Your task to perform on an android device: move a message to another label in the gmail app Image 0: 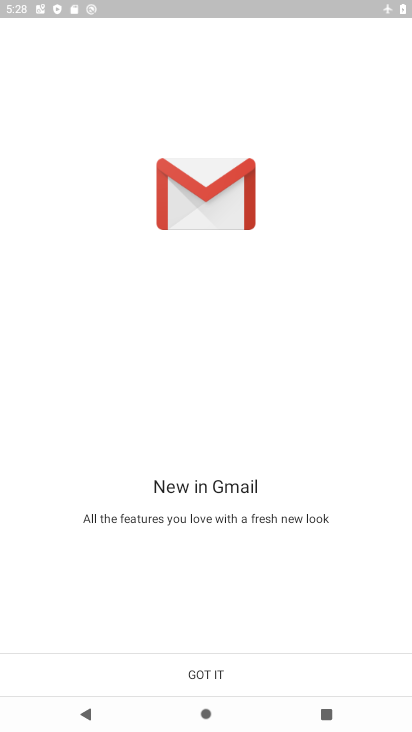
Step 0: click (213, 674)
Your task to perform on an android device: move a message to another label in the gmail app Image 1: 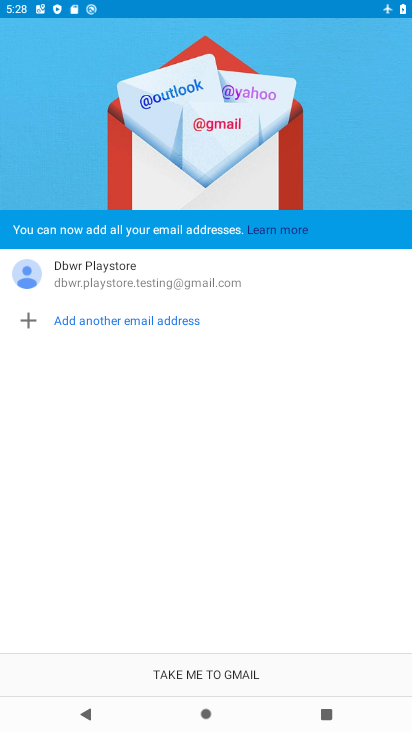
Step 1: click (225, 669)
Your task to perform on an android device: move a message to another label in the gmail app Image 2: 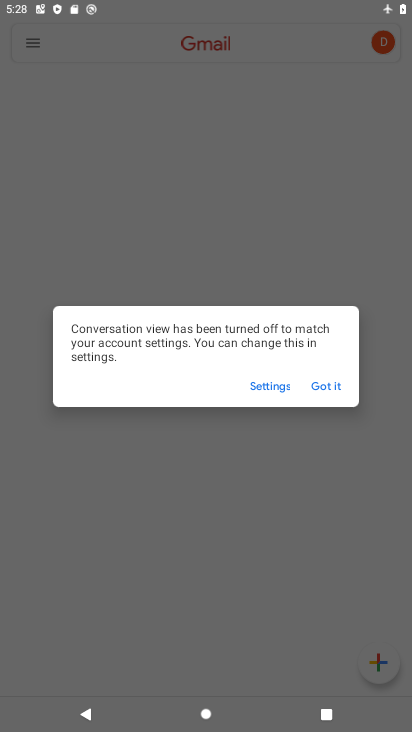
Step 2: click (320, 390)
Your task to perform on an android device: move a message to another label in the gmail app Image 3: 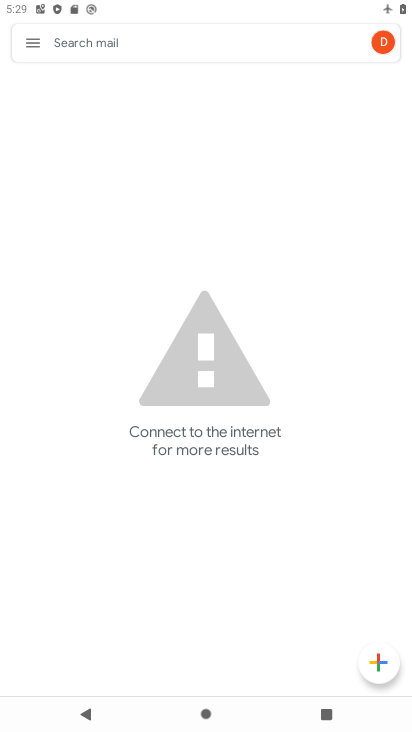
Step 3: task complete